Your task to perform on an android device: toggle sleep mode Image 0: 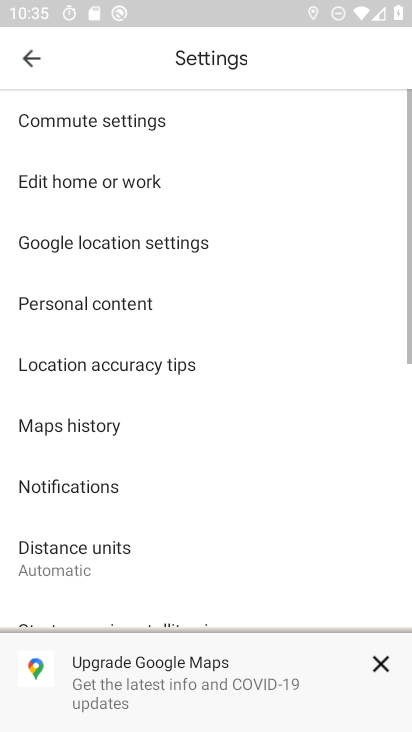
Step 0: press home button
Your task to perform on an android device: toggle sleep mode Image 1: 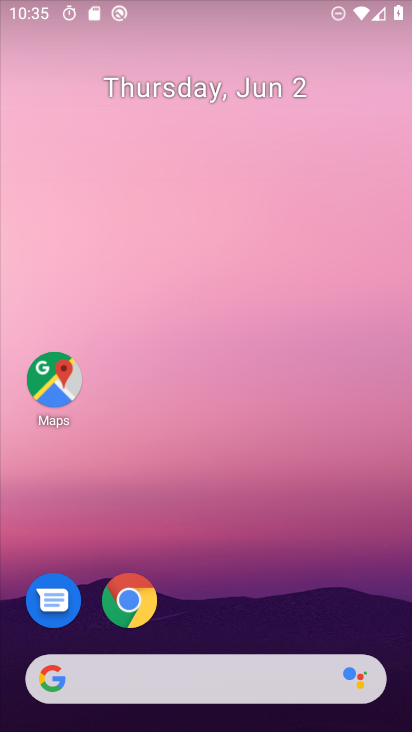
Step 1: drag from (224, 605) to (233, 10)
Your task to perform on an android device: toggle sleep mode Image 2: 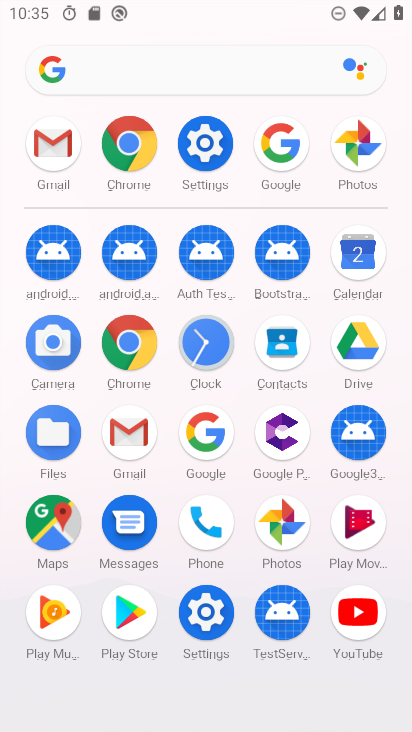
Step 2: click (205, 136)
Your task to perform on an android device: toggle sleep mode Image 3: 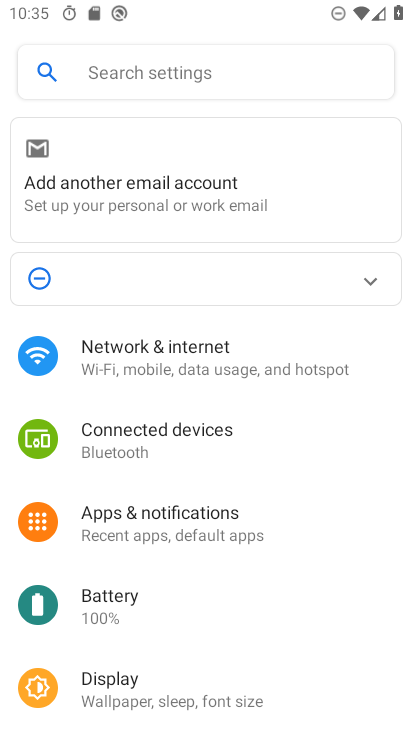
Step 3: drag from (184, 646) to (178, 235)
Your task to perform on an android device: toggle sleep mode Image 4: 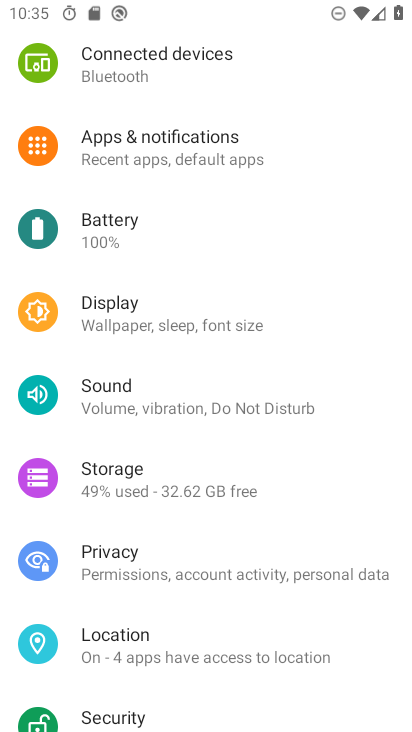
Step 4: click (184, 307)
Your task to perform on an android device: toggle sleep mode Image 5: 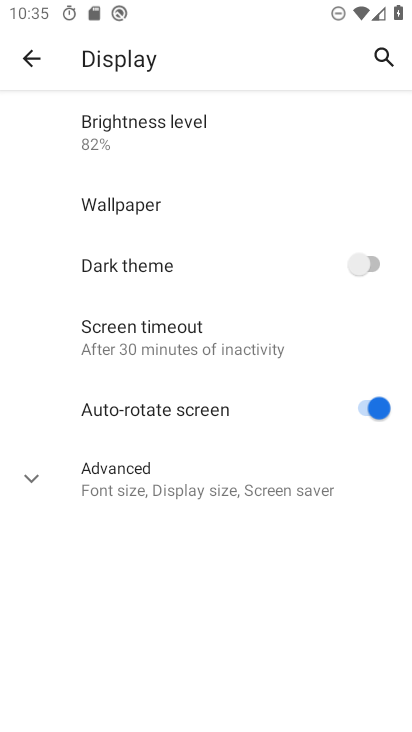
Step 5: click (158, 337)
Your task to perform on an android device: toggle sleep mode Image 6: 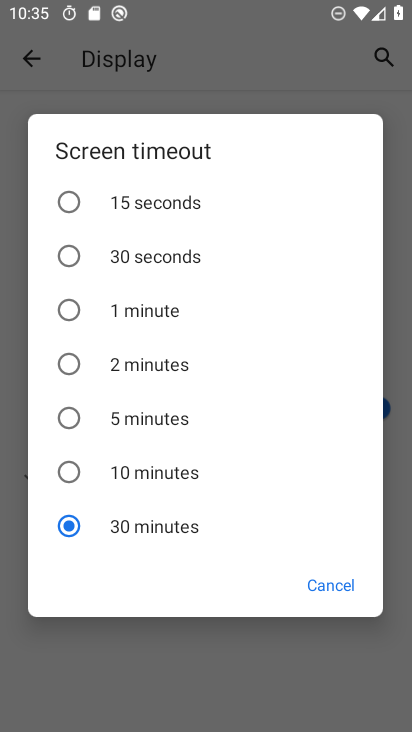
Step 6: click (58, 310)
Your task to perform on an android device: toggle sleep mode Image 7: 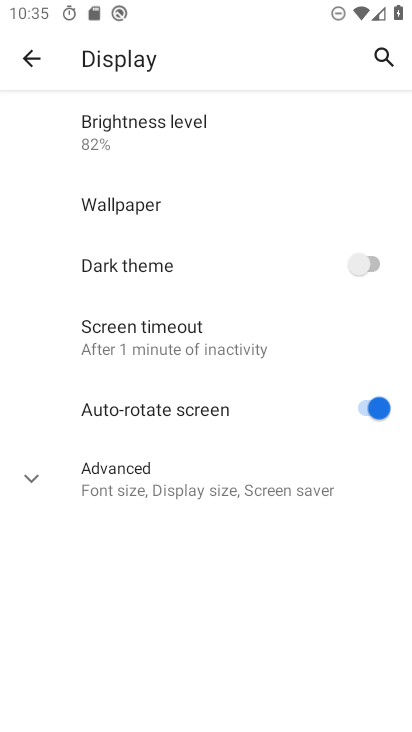
Step 7: task complete